Your task to perform on an android device: What's the weather going to be tomorrow? Image 0: 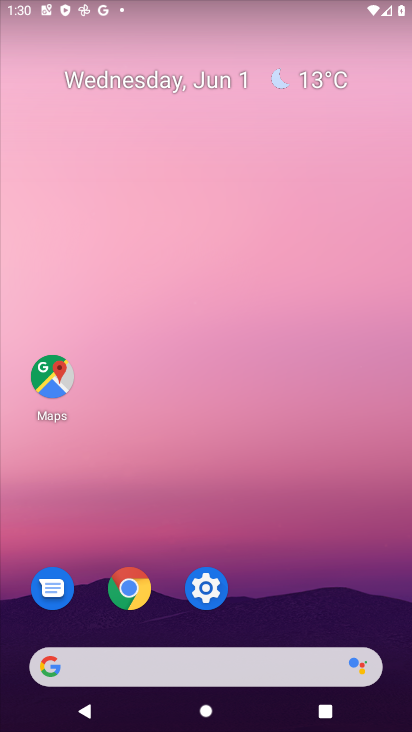
Step 0: drag from (263, 691) to (187, 181)
Your task to perform on an android device: What's the weather going to be tomorrow? Image 1: 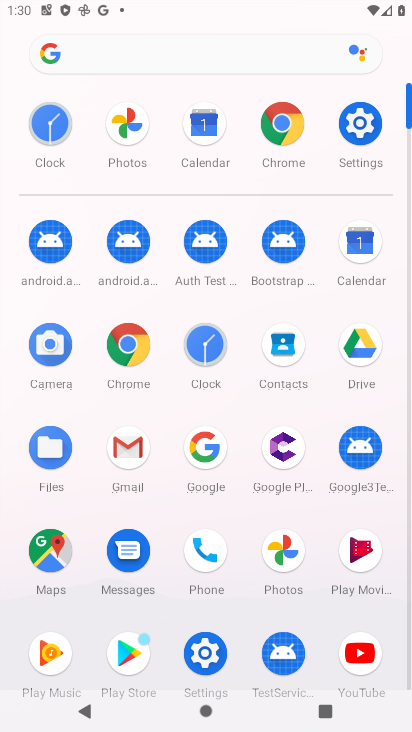
Step 1: click (128, 71)
Your task to perform on an android device: What's the weather going to be tomorrow? Image 2: 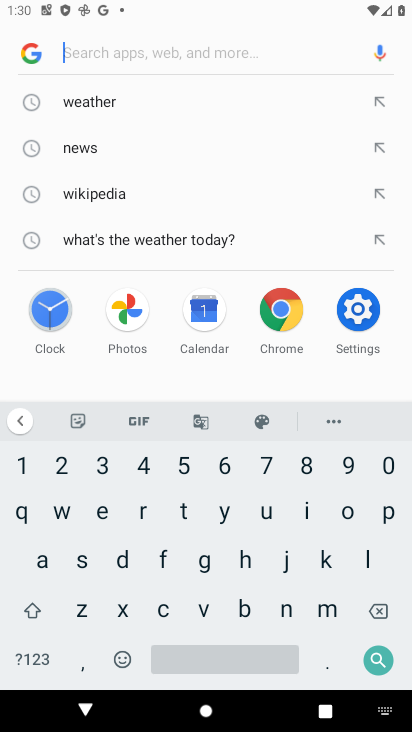
Step 2: click (97, 105)
Your task to perform on an android device: What's the weather going to be tomorrow? Image 3: 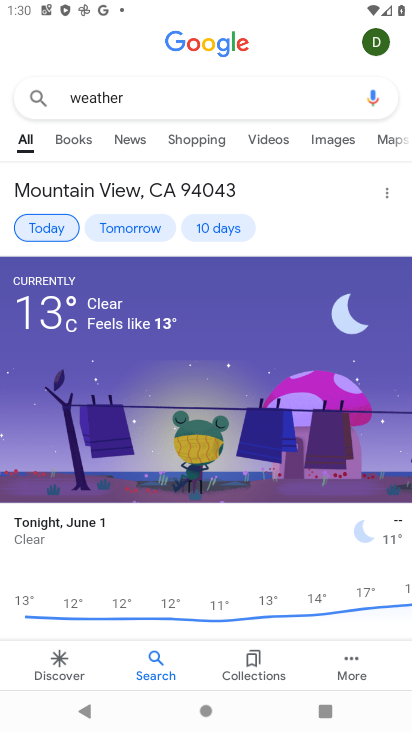
Step 3: click (125, 227)
Your task to perform on an android device: What's the weather going to be tomorrow? Image 4: 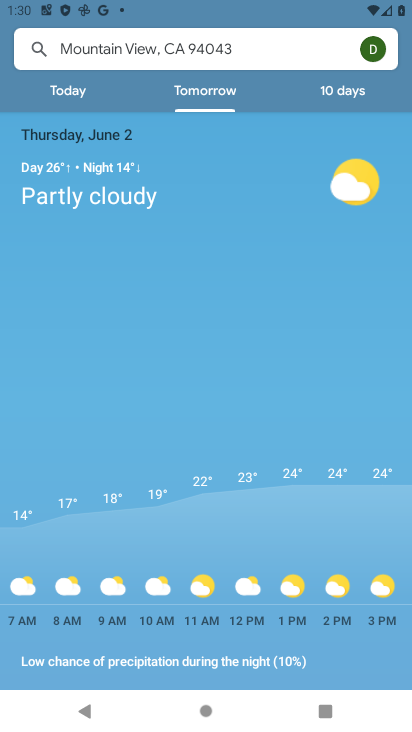
Step 4: task complete